Your task to perform on an android device: Search for alienware area 51 on ebay.com, select the first entry, and add it to the cart. Image 0: 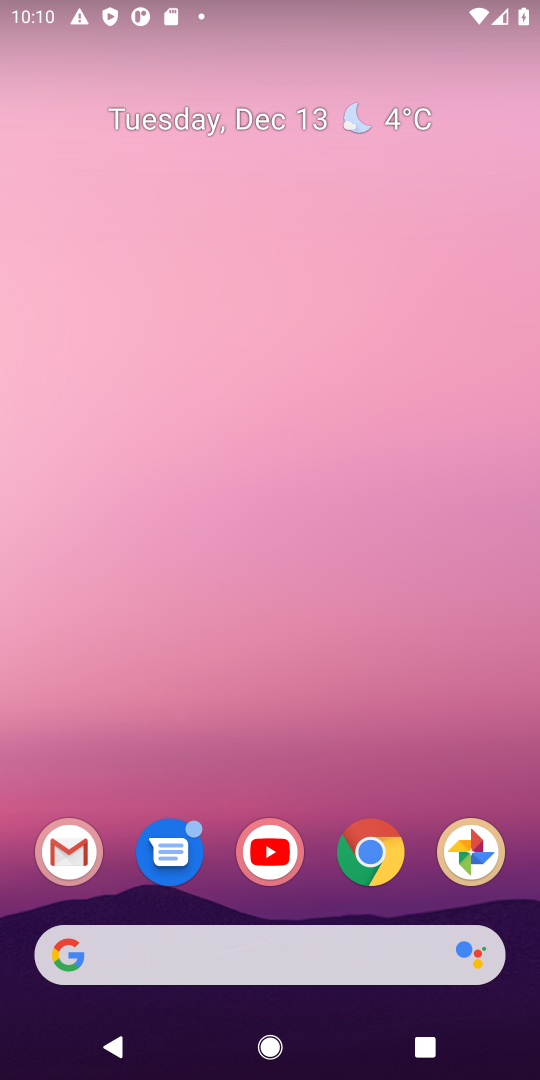
Step 0: click (103, 957)
Your task to perform on an android device: Search for alienware area 51 on ebay.com, select the first entry, and add it to the cart. Image 1: 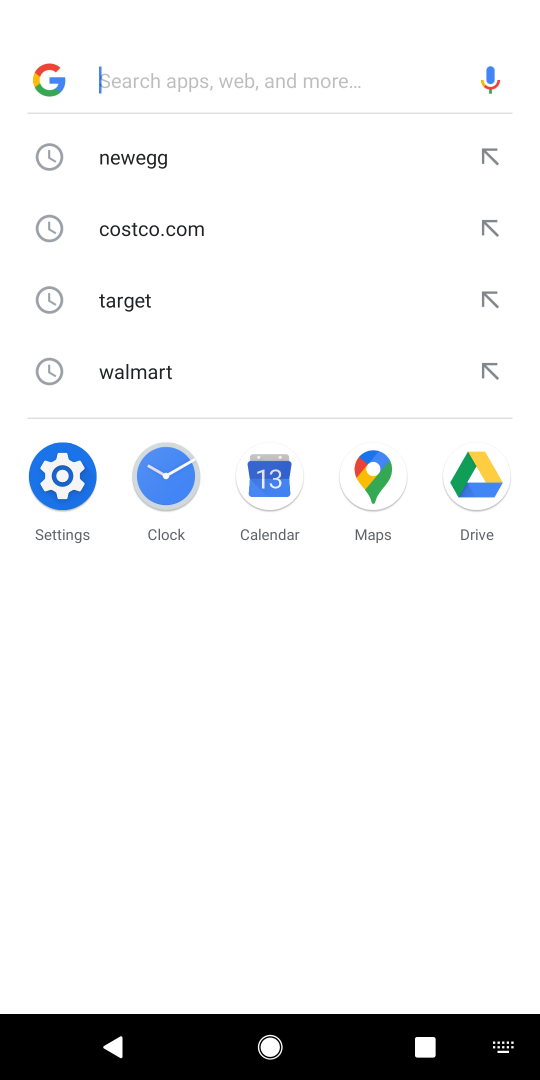
Step 1: type "ebay.com"
Your task to perform on an android device: Search for alienware area 51 on ebay.com, select the first entry, and add it to the cart. Image 2: 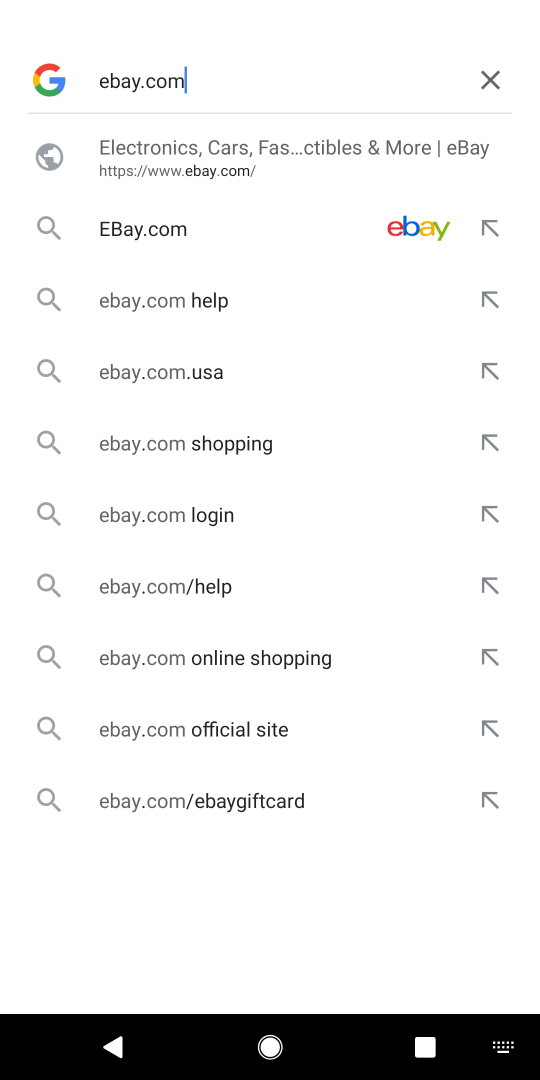
Step 2: press enter
Your task to perform on an android device: Search for alienware area 51 on ebay.com, select the first entry, and add it to the cart. Image 3: 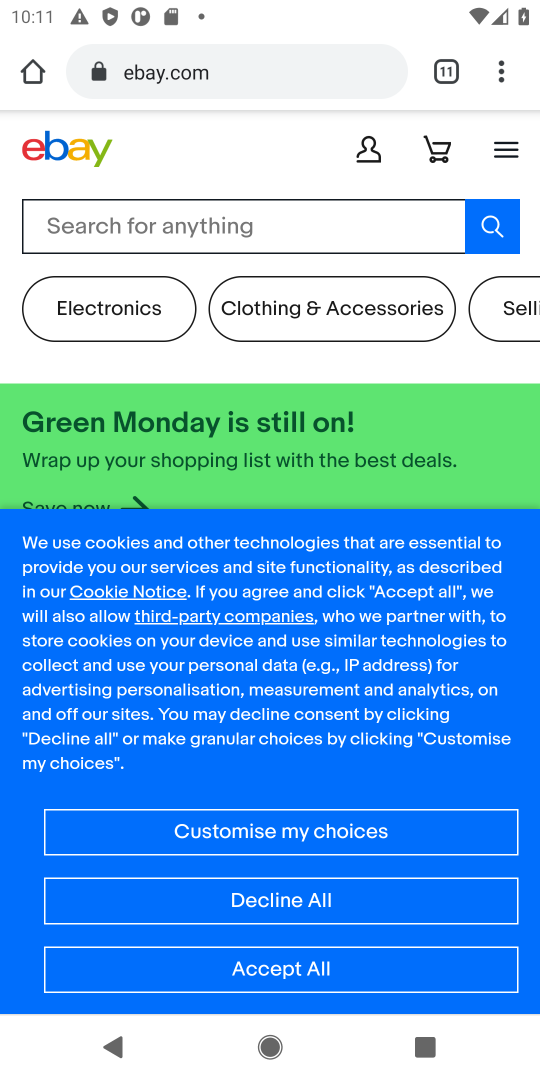
Step 3: click (248, 232)
Your task to perform on an android device: Search for alienware area 51 on ebay.com, select the first entry, and add it to the cart. Image 4: 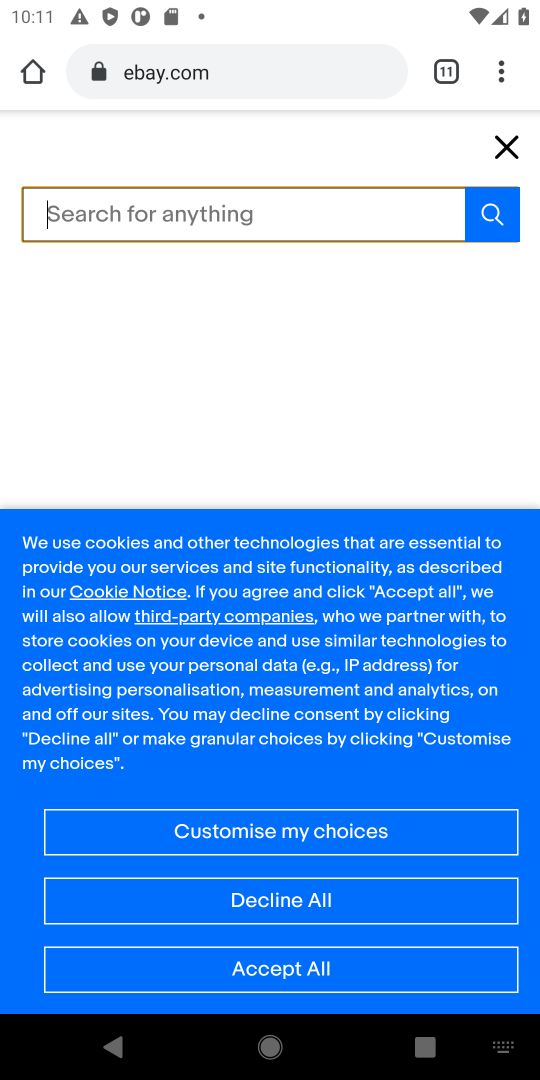
Step 4: type "alienware area 51"
Your task to perform on an android device: Search for alienware area 51 on ebay.com, select the first entry, and add it to the cart. Image 5: 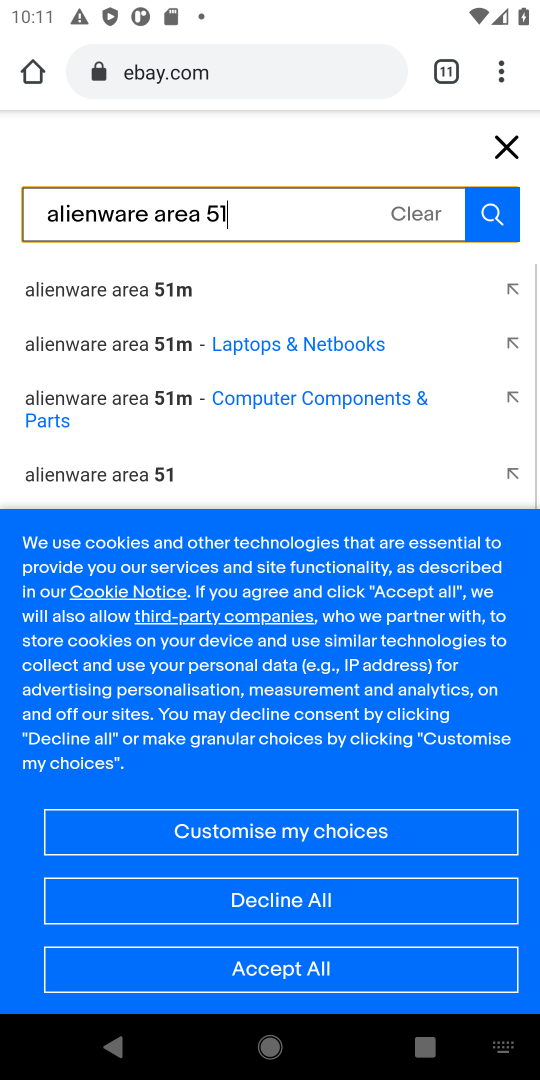
Step 5: press enter
Your task to perform on an android device: Search for alienware area 51 on ebay.com, select the first entry, and add it to the cart. Image 6: 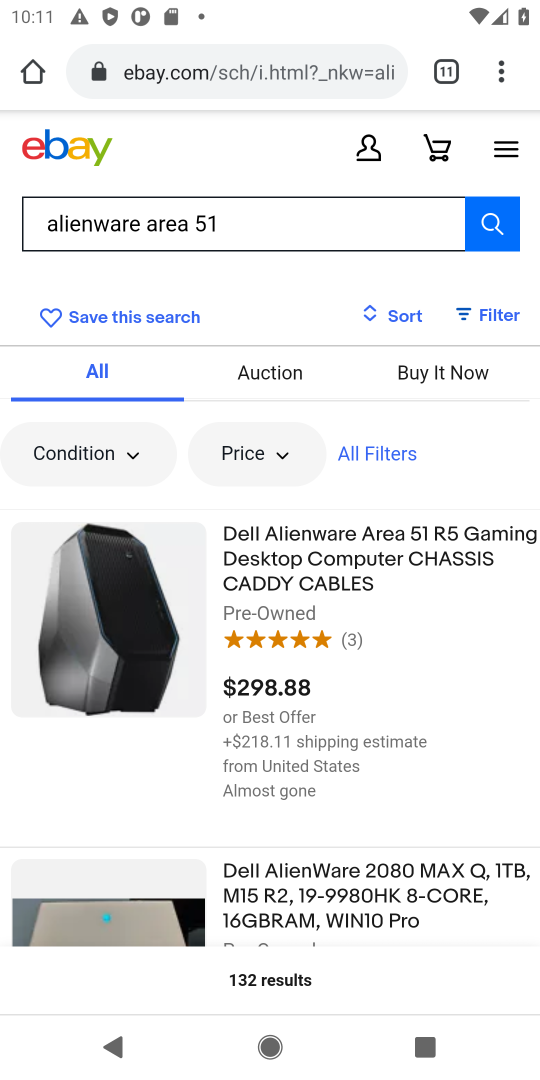
Step 6: click (334, 556)
Your task to perform on an android device: Search for alienware area 51 on ebay.com, select the first entry, and add it to the cart. Image 7: 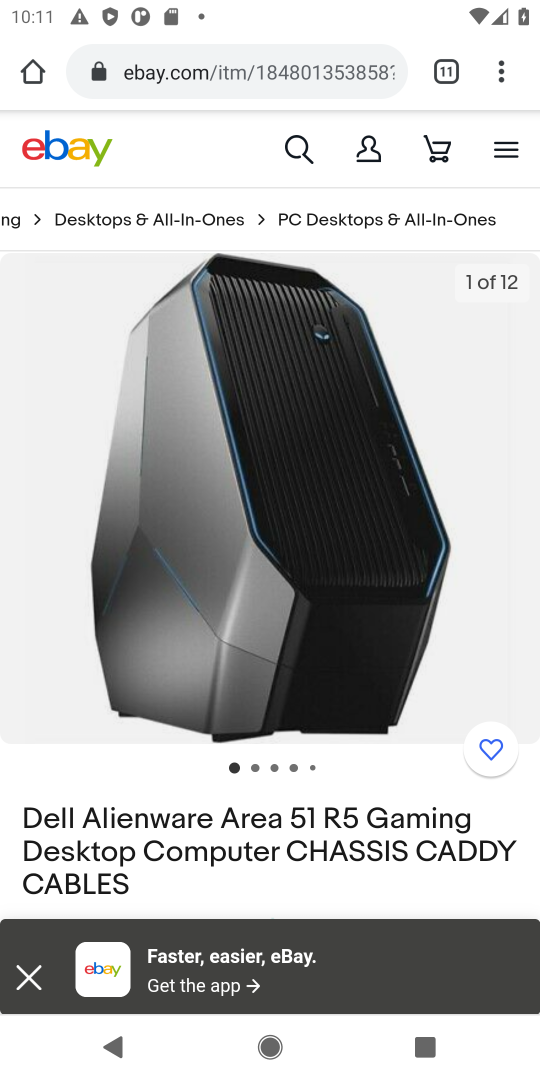
Step 7: drag from (366, 872) to (347, 361)
Your task to perform on an android device: Search for alienware area 51 on ebay.com, select the first entry, and add it to the cart. Image 8: 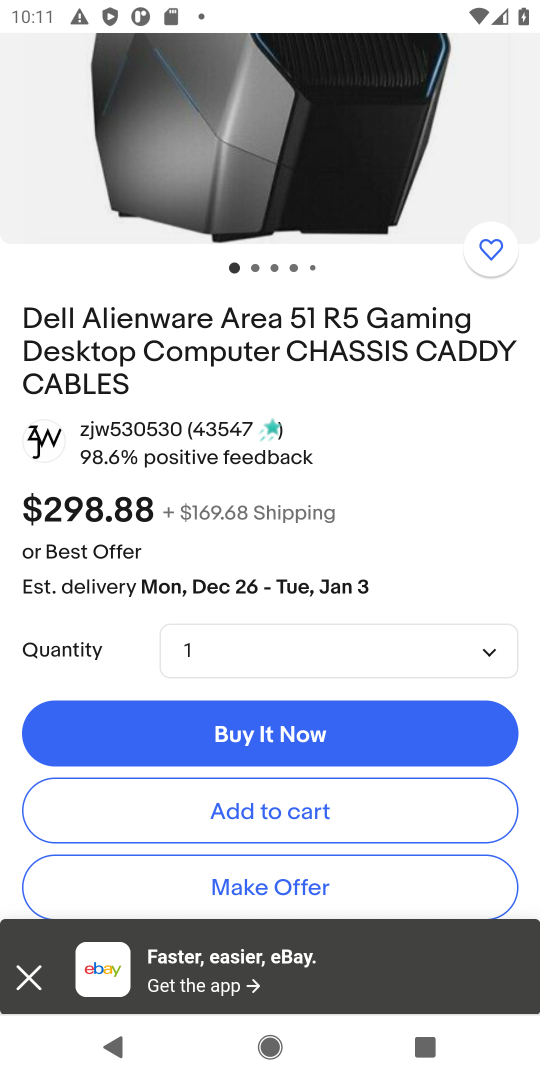
Step 8: drag from (312, 860) to (322, 302)
Your task to perform on an android device: Search for alienware area 51 on ebay.com, select the first entry, and add it to the cart. Image 9: 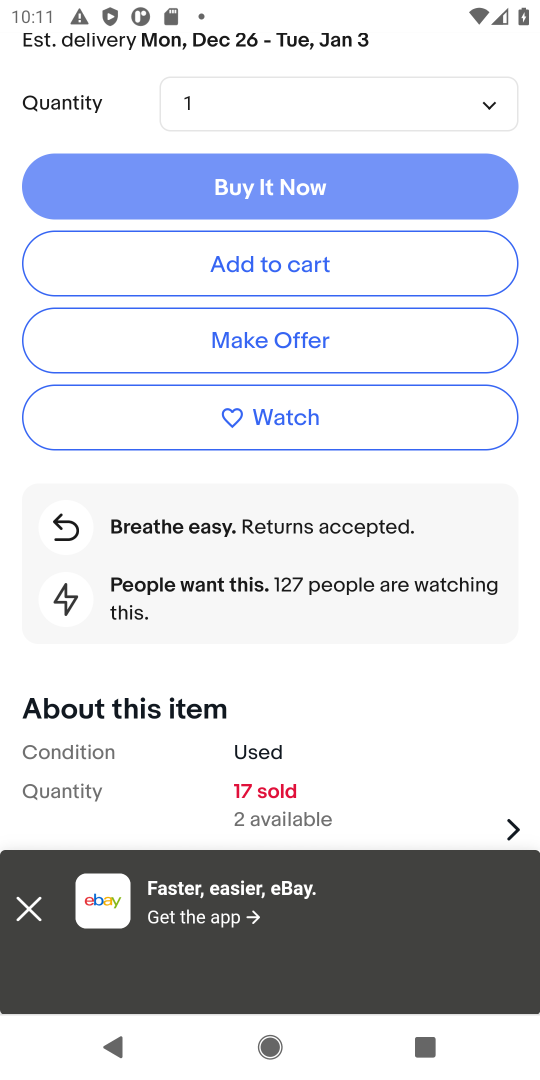
Step 9: click (241, 263)
Your task to perform on an android device: Search for alienware area 51 on ebay.com, select the first entry, and add it to the cart. Image 10: 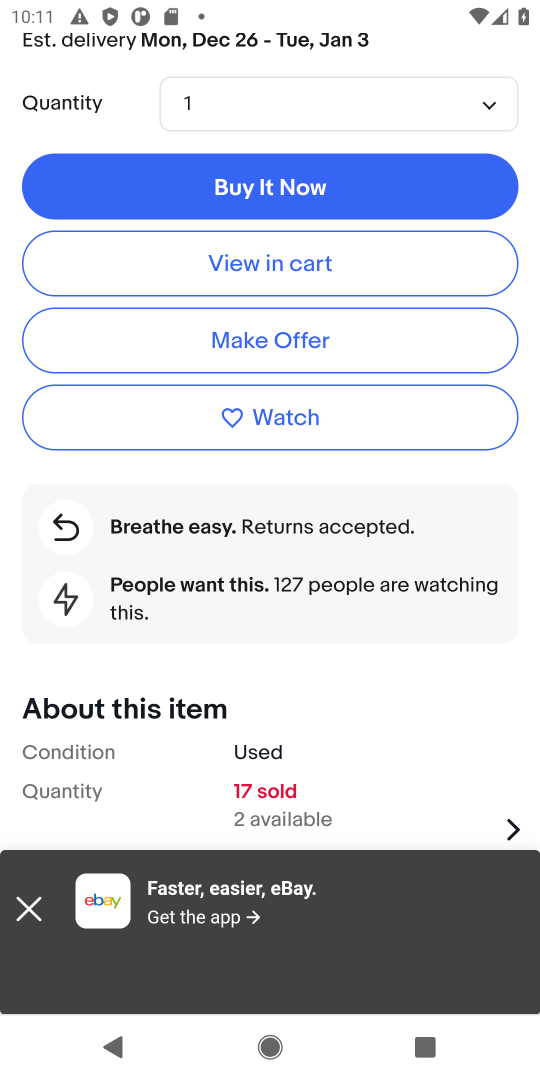
Step 10: task complete